Your task to perform on an android device: Search for seafood restaurants on Google Maps Image 0: 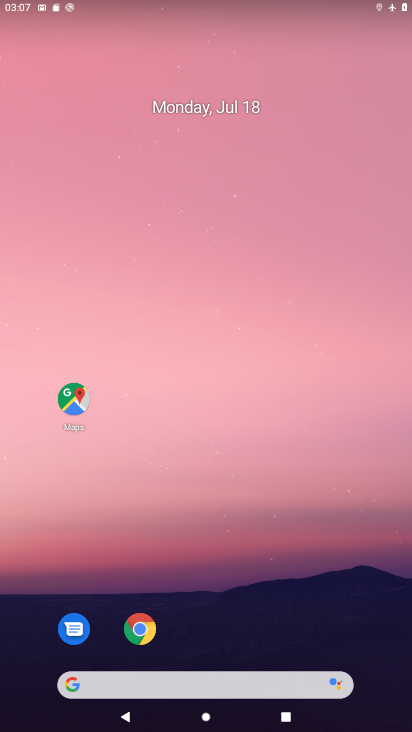
Step 0: drag from (298, 566) to (336, 85)
Your task to perform on an android device: Search for seafood restaurants on Google Maps Image 1: 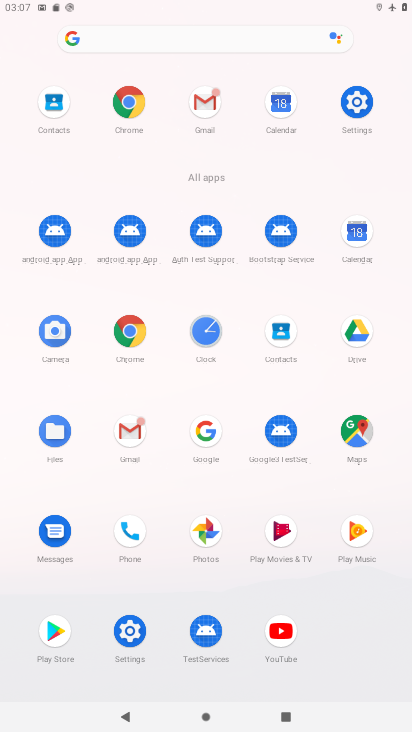
Step 1: click (355, 427)
Your task to perform on an android device: Search for seafood restaurants on Google Maps Image 2: 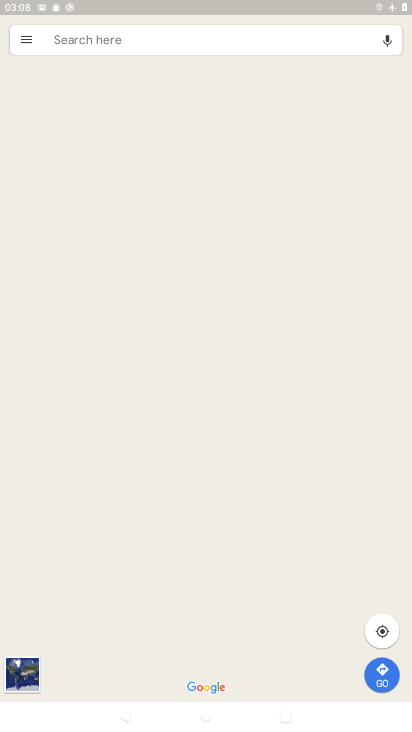
Step 2: click (202, 41)
Your task to perform on an android device: Search for seafood restaurants on Google Maps Image 3: 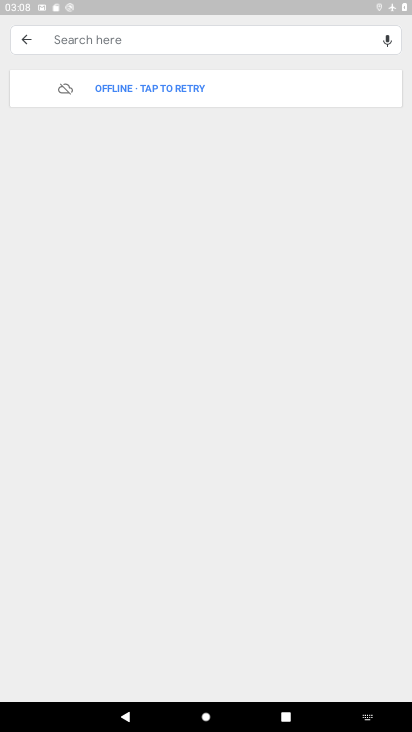
Step 3: type "seafood restaurants"
Your task to perform on an android device: Search for seafood restaurants on Google Maps Image 4: 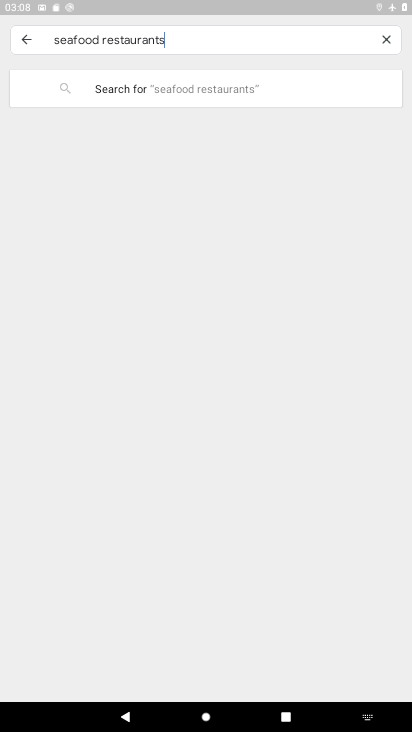
Step 4: task complete